Your task to perform on an android device: change text size in settings app Image 0: 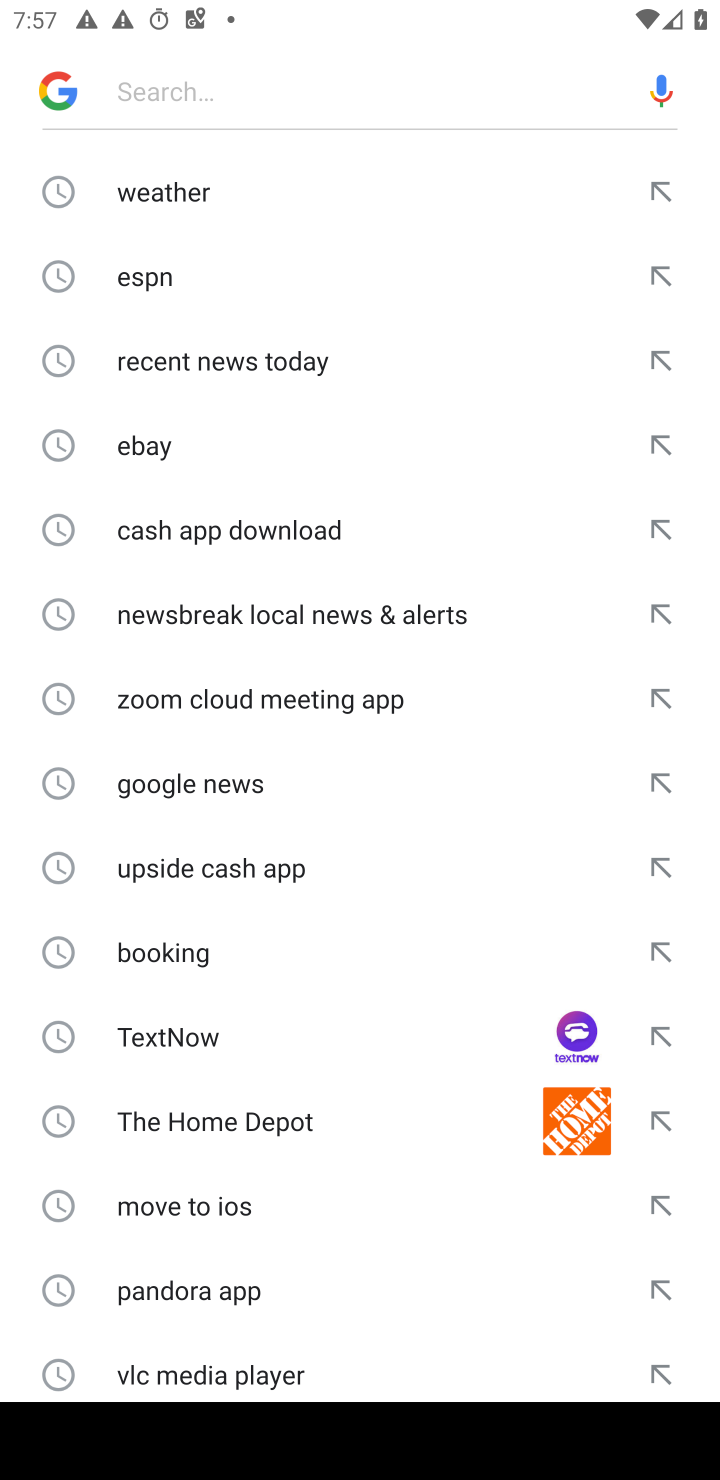
Step 0: drag from (319, 298) to (401, 1217)
Your task to perform on an android device: change text size in settings app Image 1: 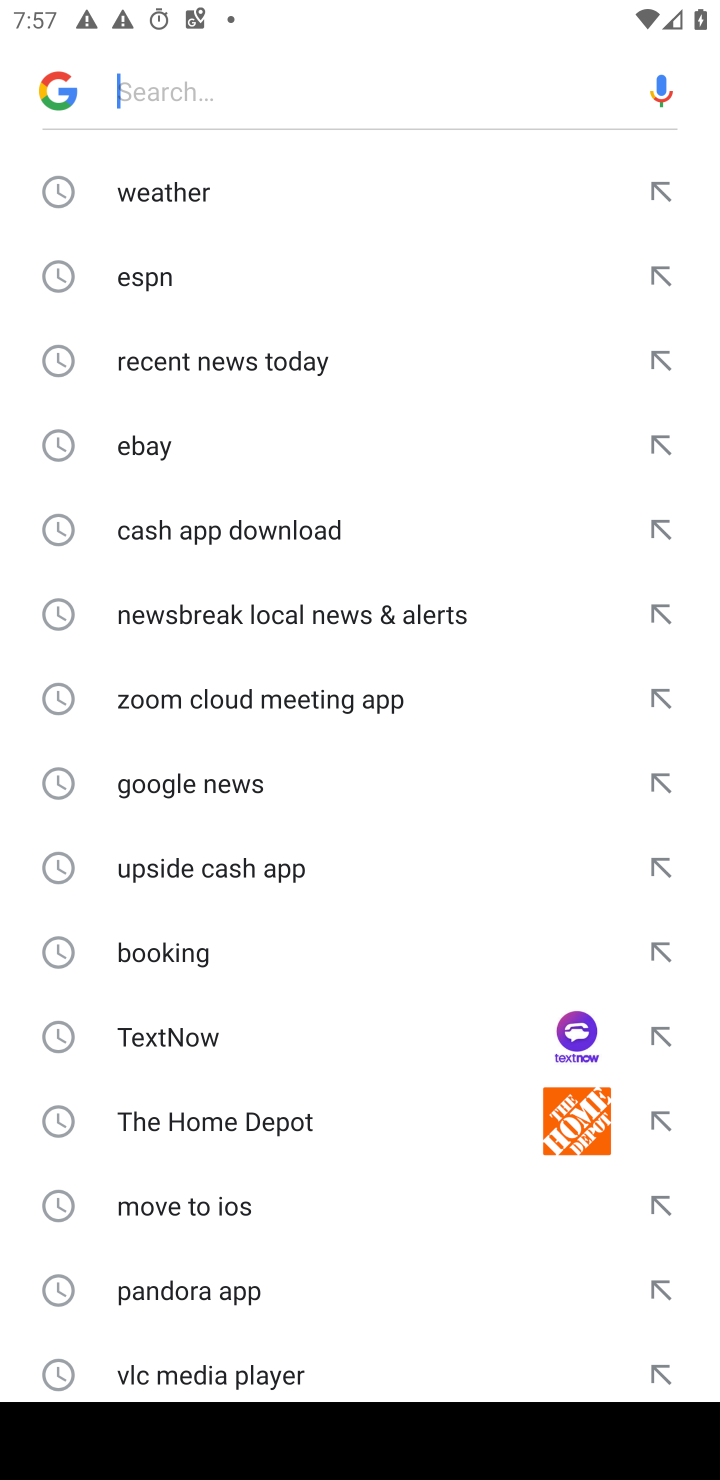
Step 1: press home button
Your task to perform on an android device: change text size in settings app Image 2: 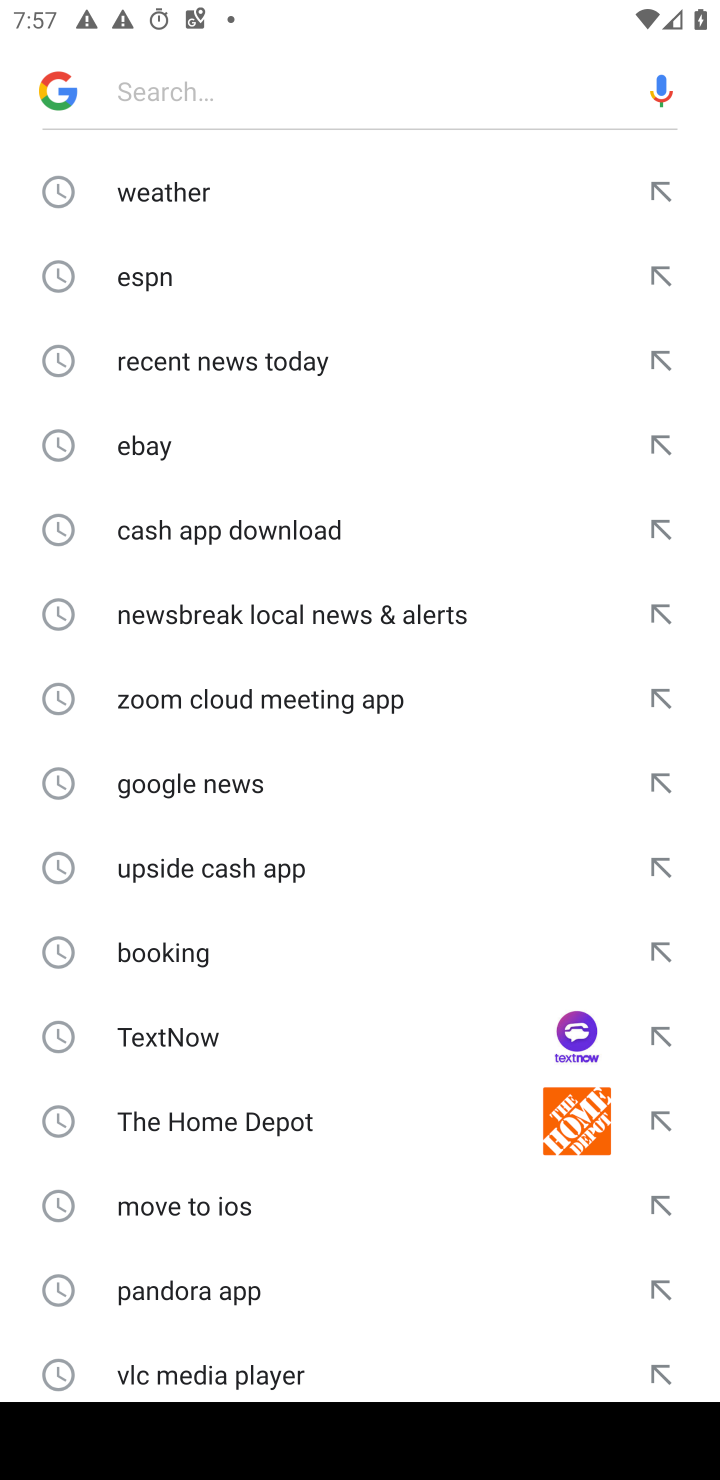
Step 2: press home button
Your task to perform on an android device: change text size in settings app Image 3: 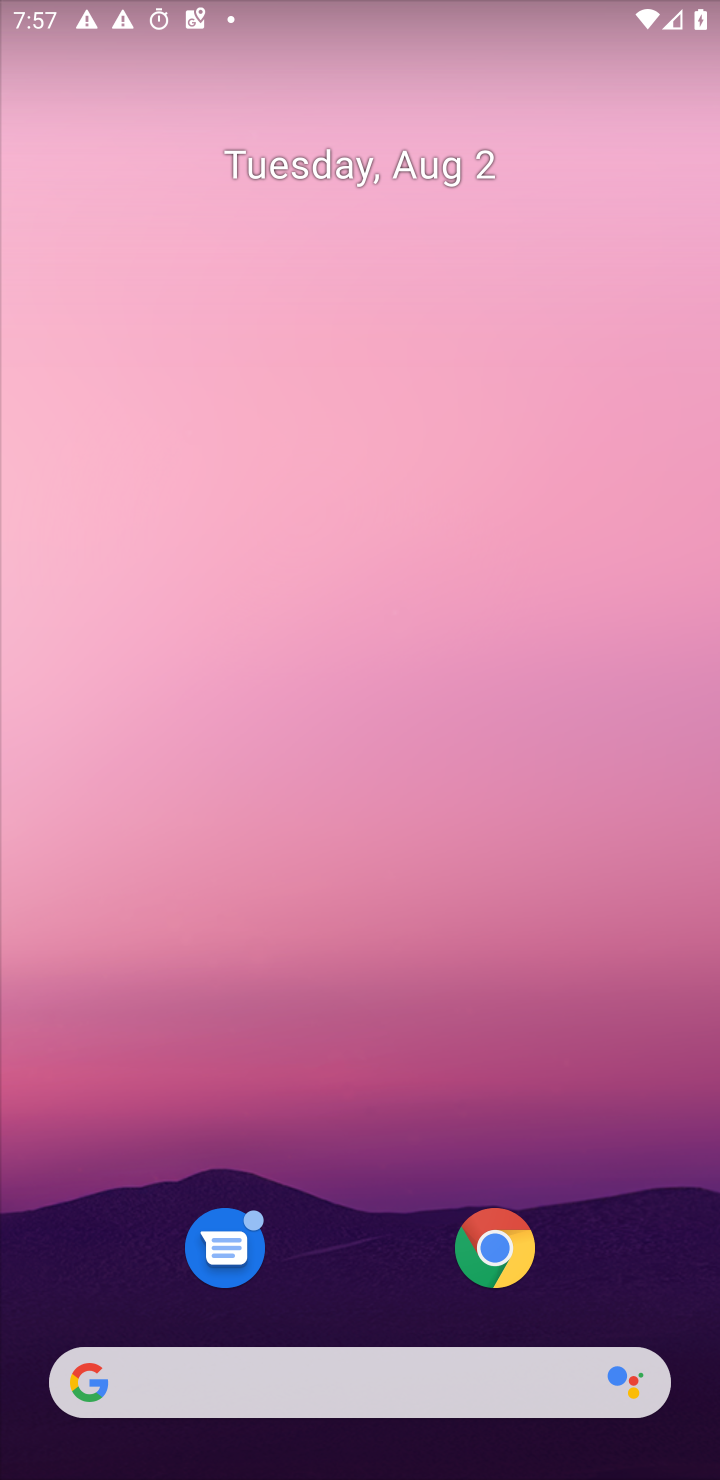
Step 3: drag from (355, 1078) to (405, 148)
Your task to perform on an android device: change text size in settings app Image 4: 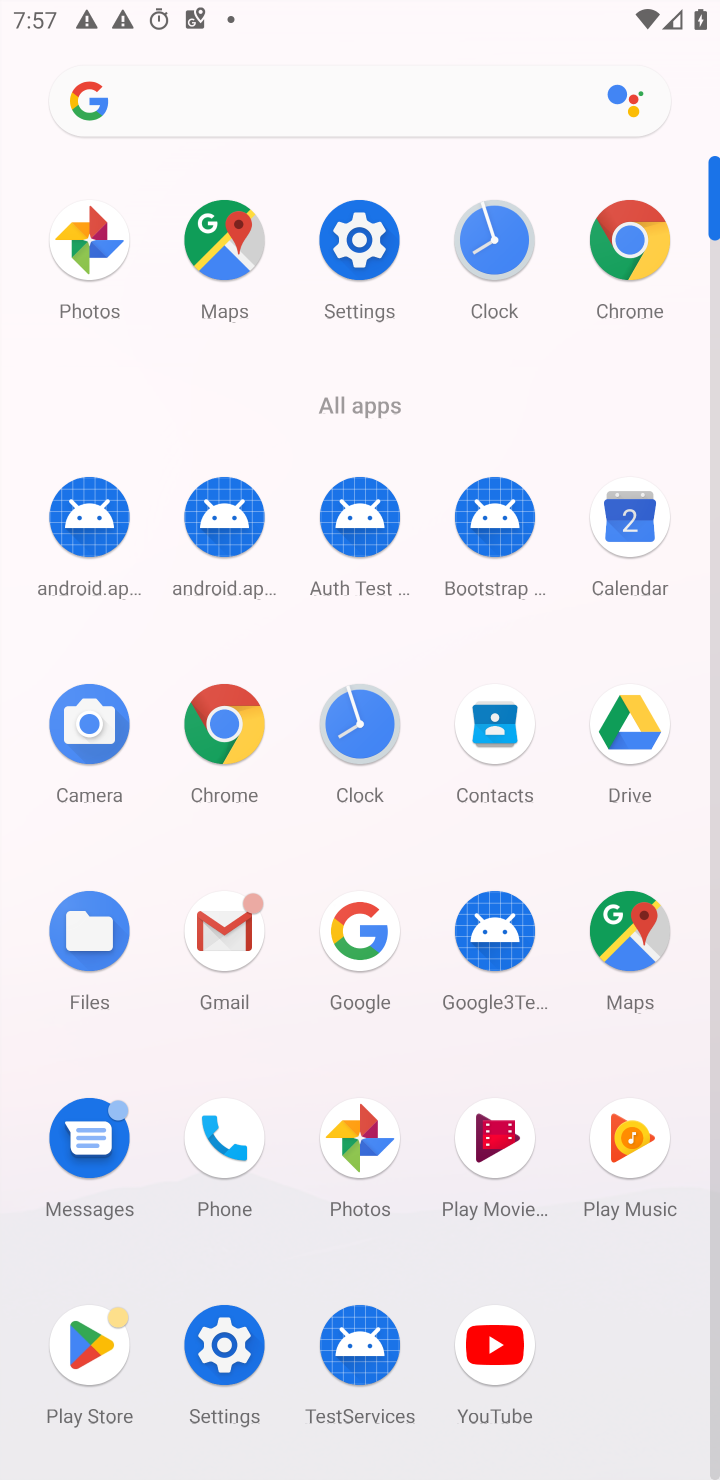
Step 4: click (358, 233)
Your task to perform on an android device: change text size in settings app Image 5: 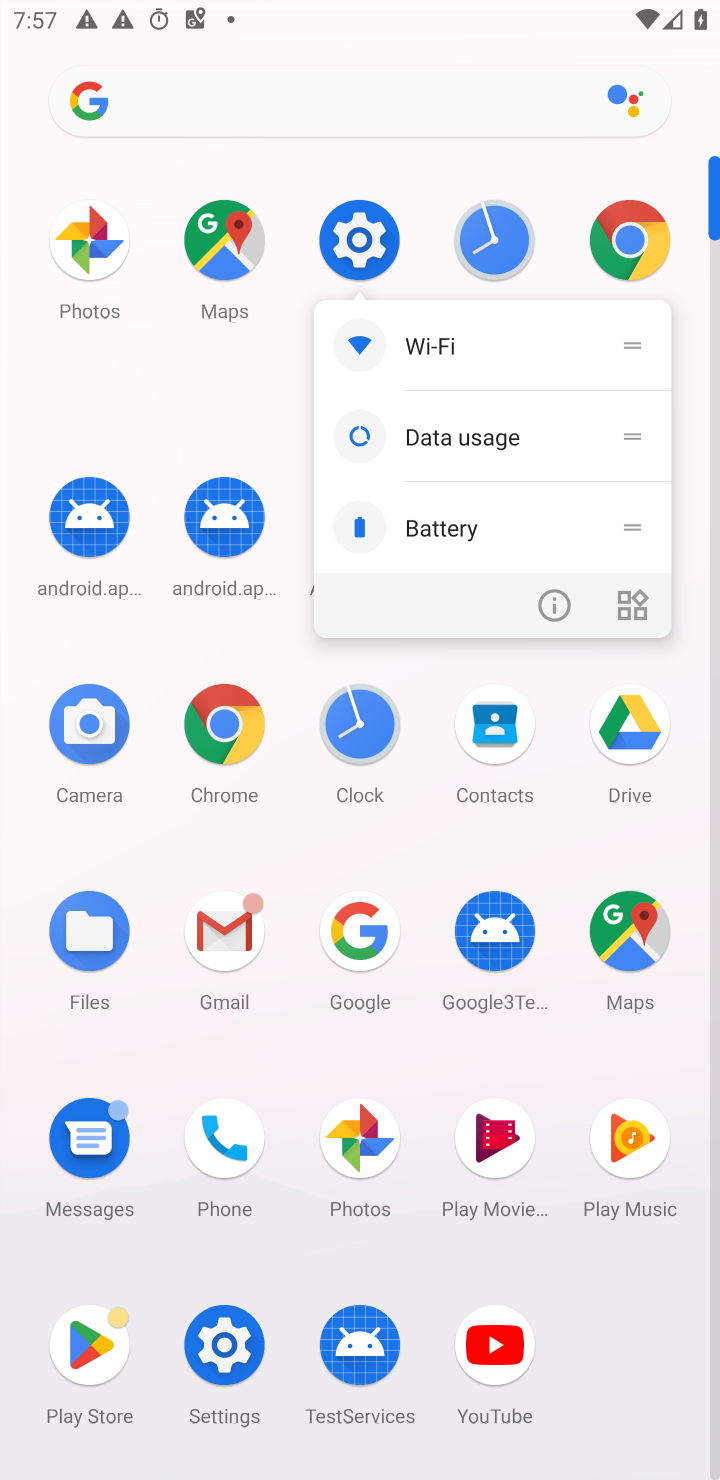
Step 5: click (554, 603)
Your task to perform on an android device: change text size in settings app Image 6: 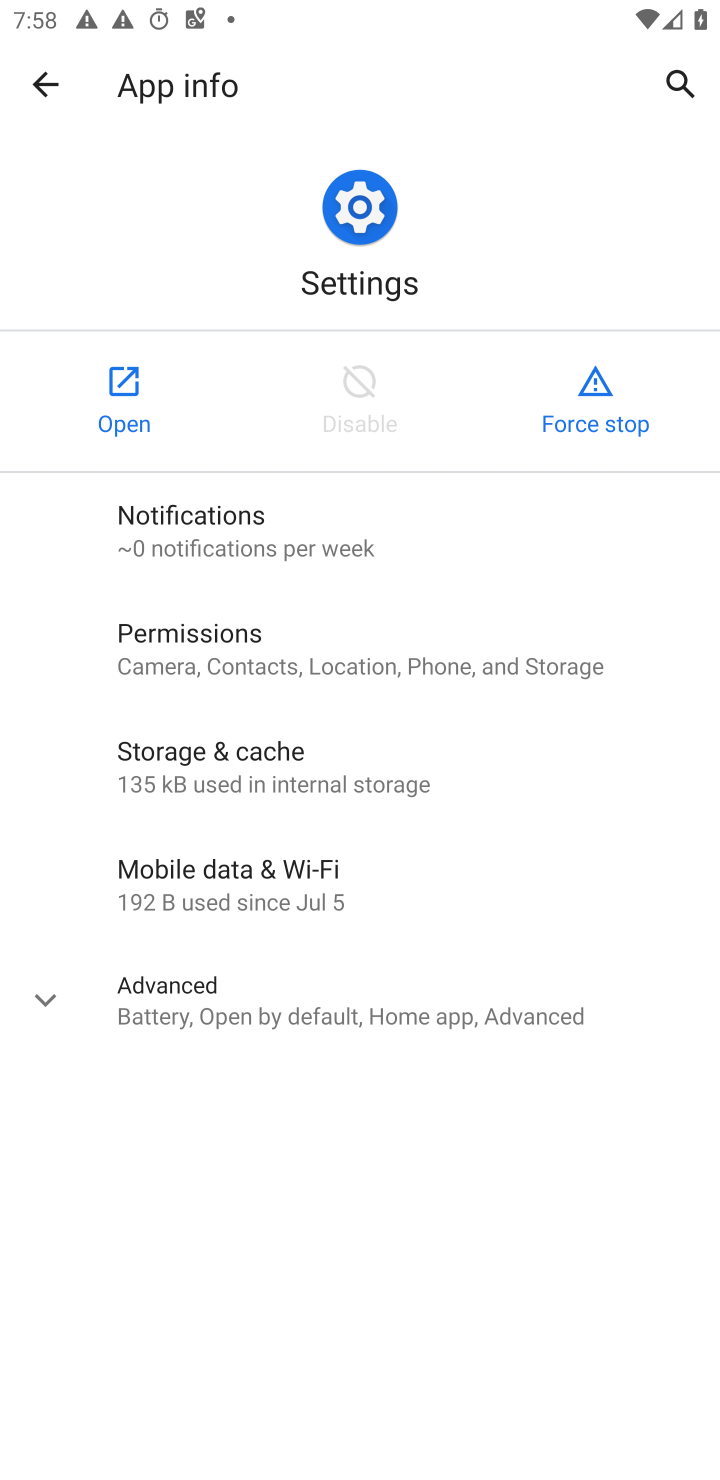
Step 6: click (124, 407)
Your task to perform on an android device: change text size in settings app Image 7: 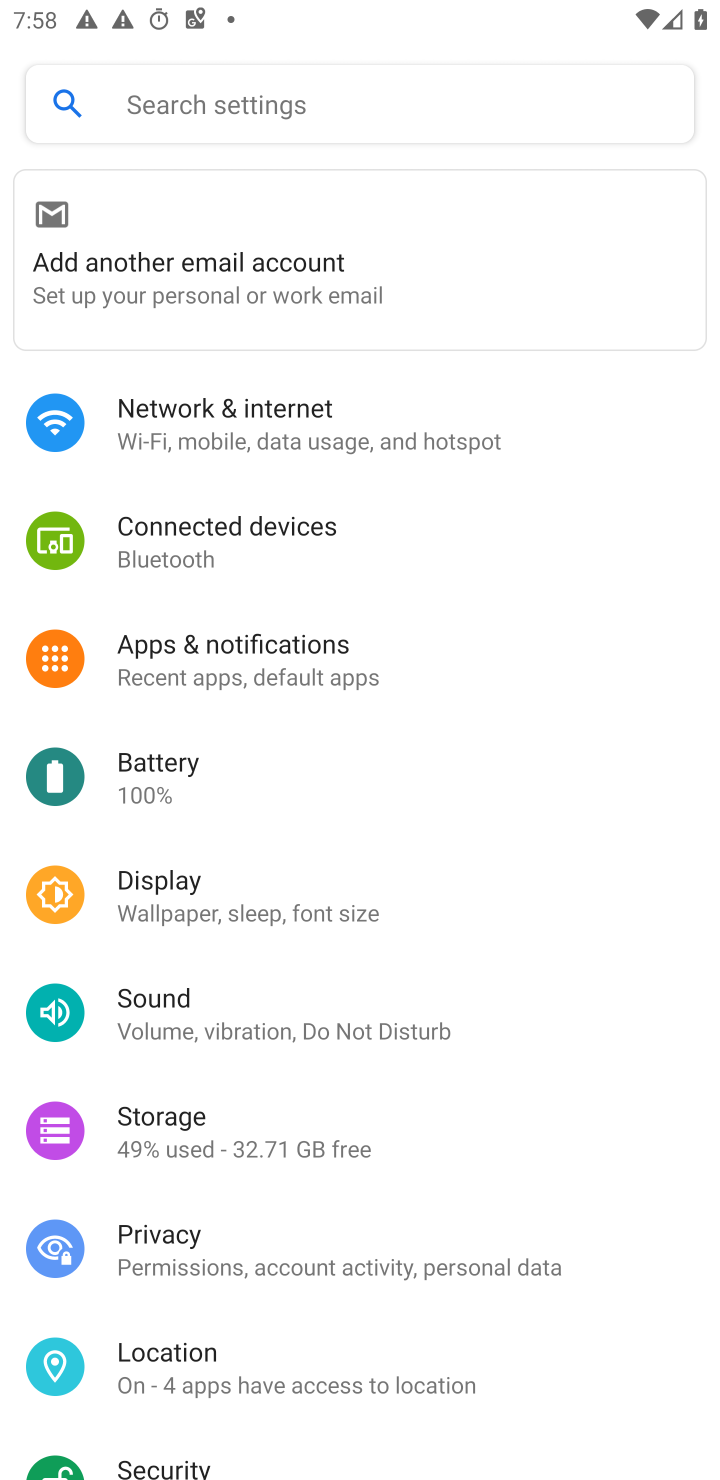
Step 7: drag from (378, 824) to (440, 382)
Your task to perform on an android device: change text size in settings app Image 8: 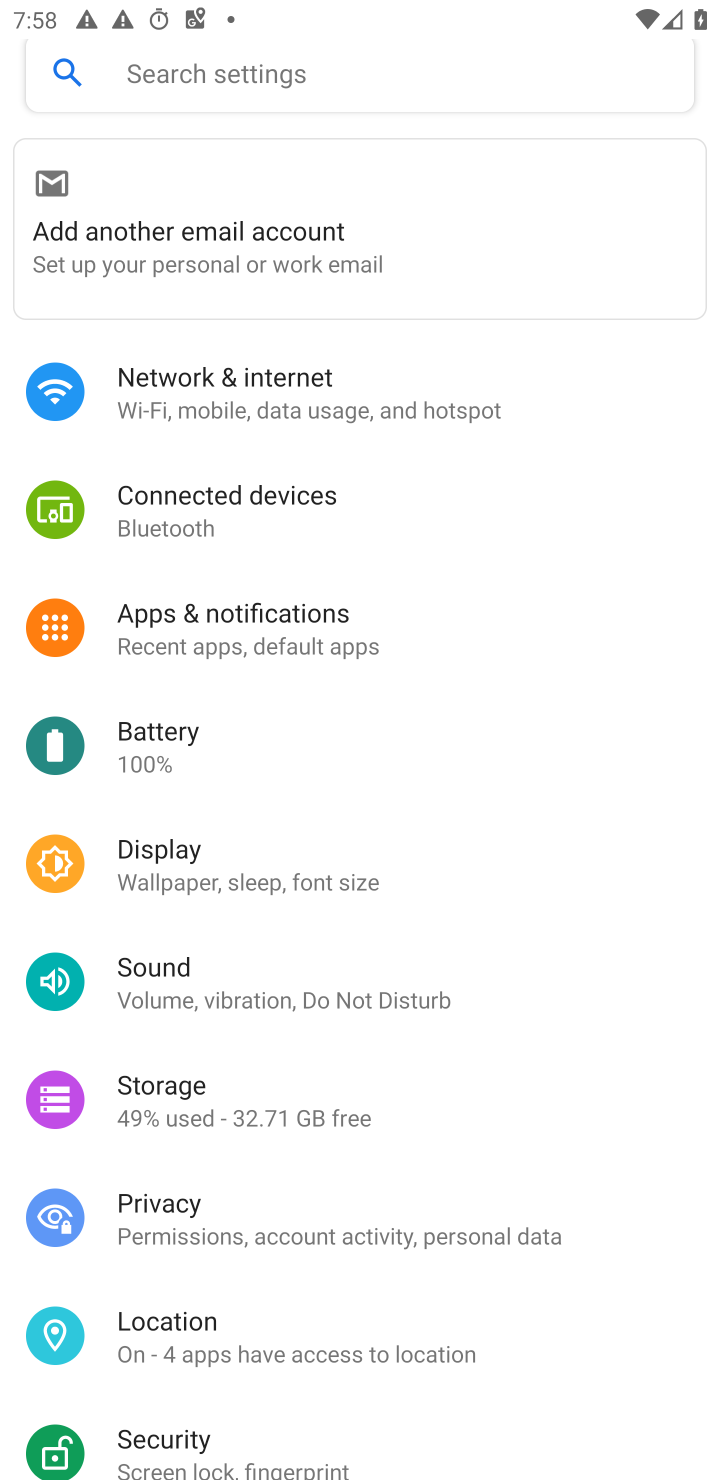
Step 8: click (220, 890)
Your task to perform on an android device: change text size in settings app Image 9: 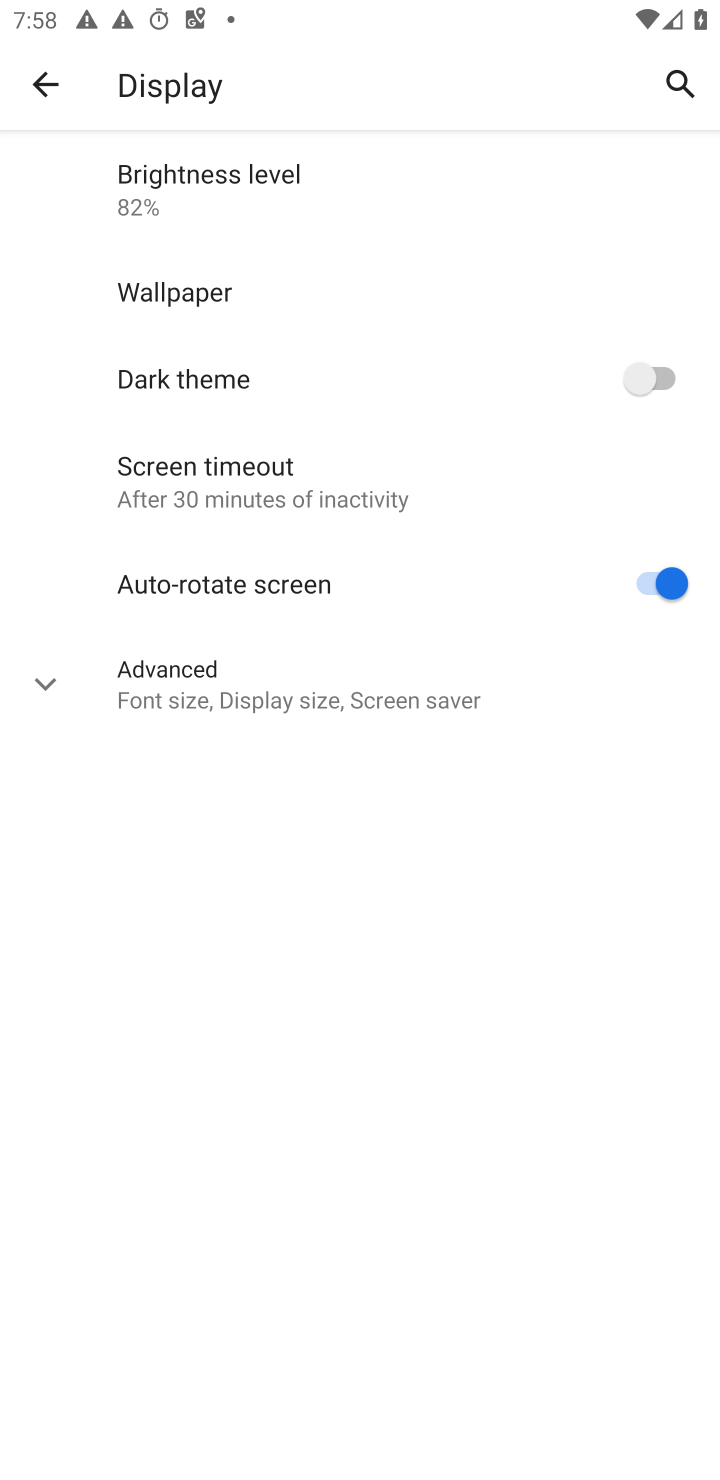
Step 9: click (172, 667)
Your task to perform on an android device: change text size in settings app Image 10: 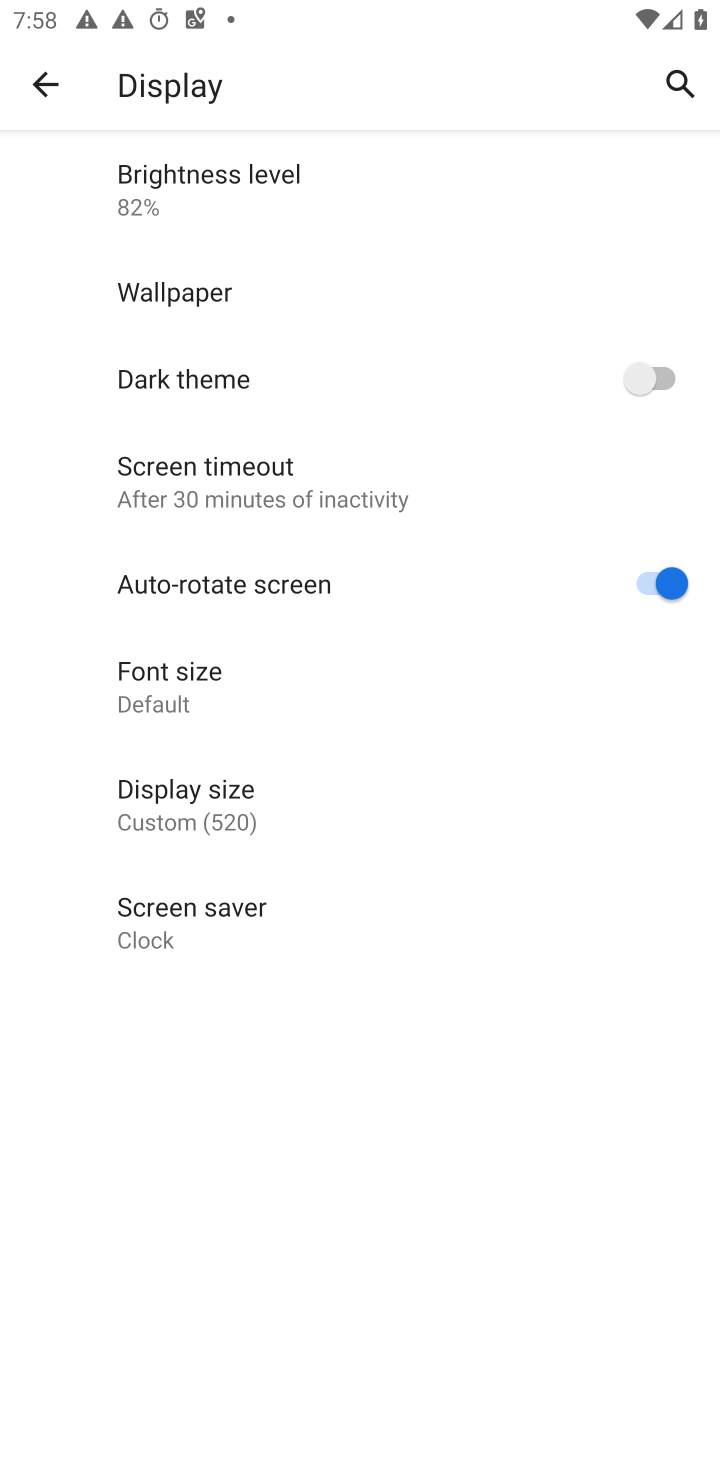
Step 10: click (233, 688)
Your task to perform on an android device: change text size in settings app Image 11: 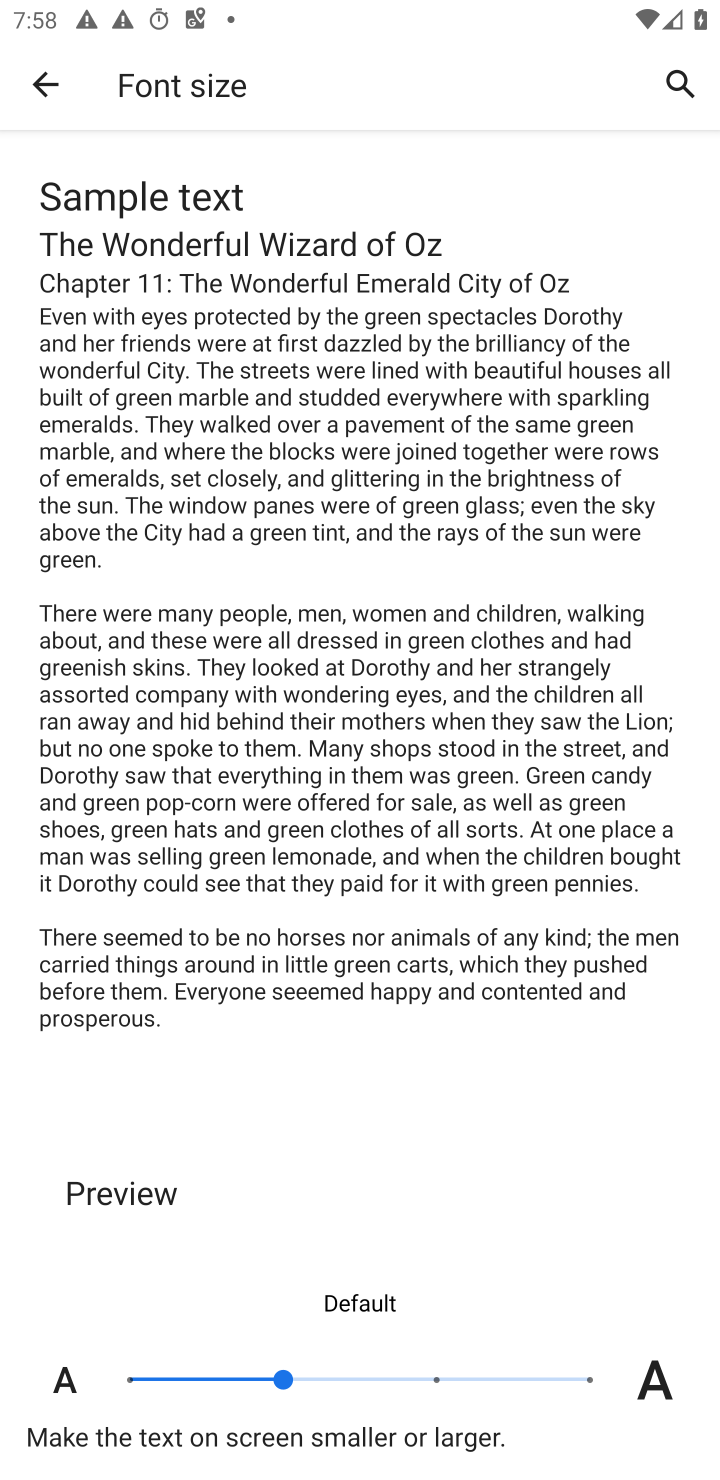
Step 11: click (410, 1348)
Your task to perform on an android device: change text size in settings app Image 12: 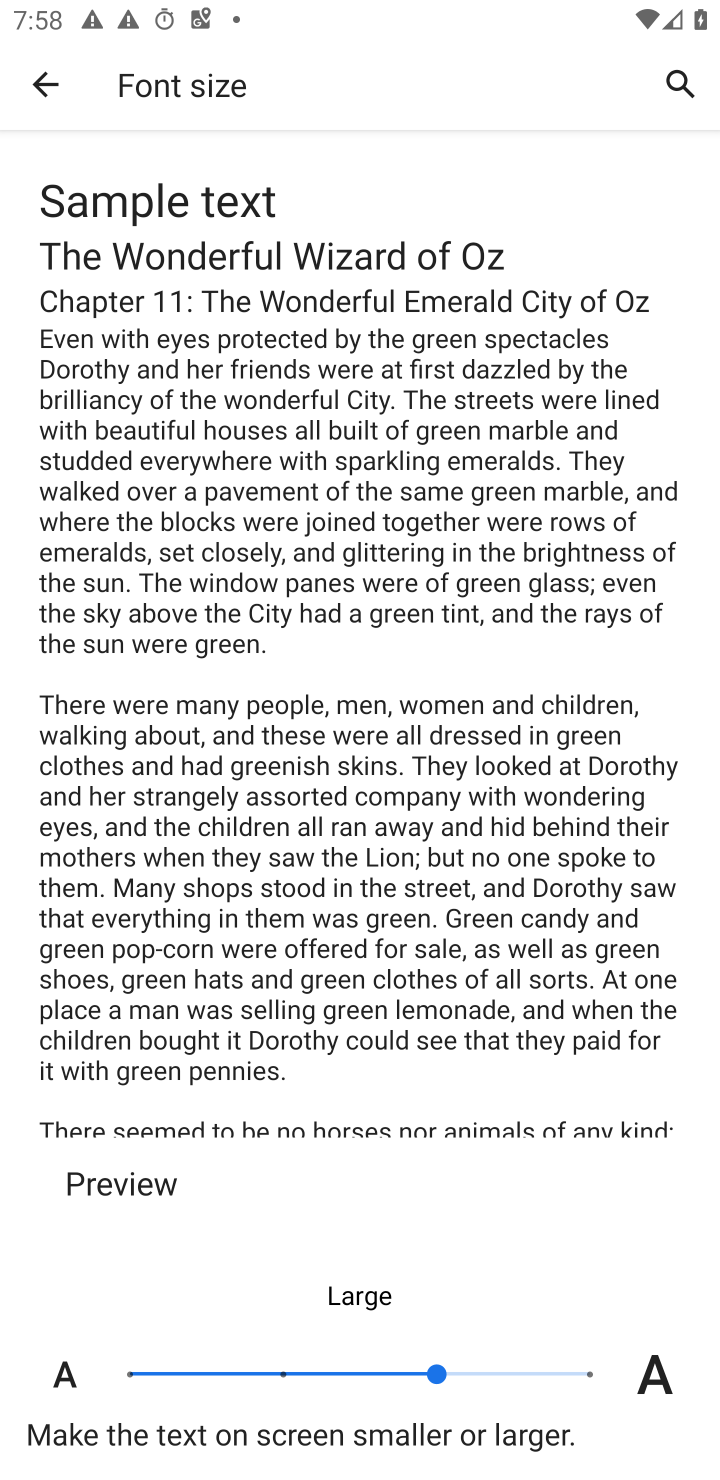
Step 12: task complete